Your task to perform on an android device: turn off notifications in google photos Image 0: 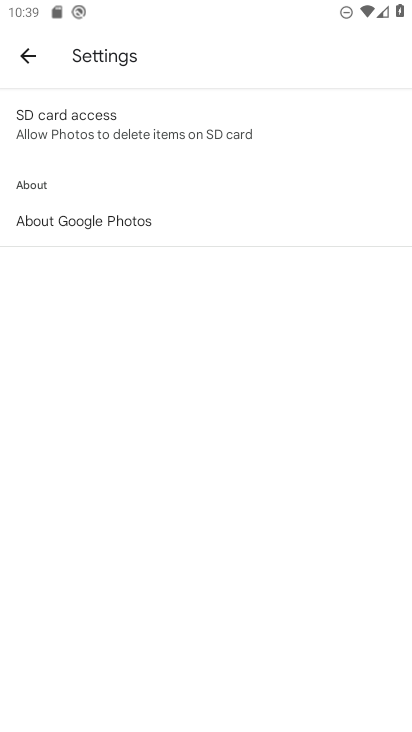
Step 0: press home button
Your task to perform on an android device: turn off notifications in google photos Image 1: 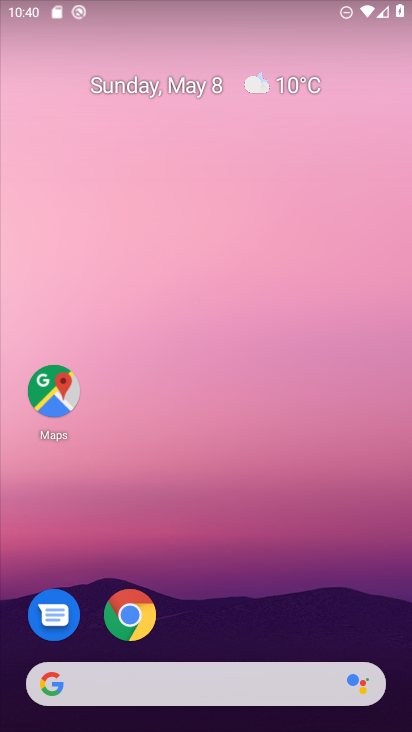
Step 1: drag from (283, 580) to (246, 81)
Your task to perform on an android device: turn off notifications in google photos Image 2: 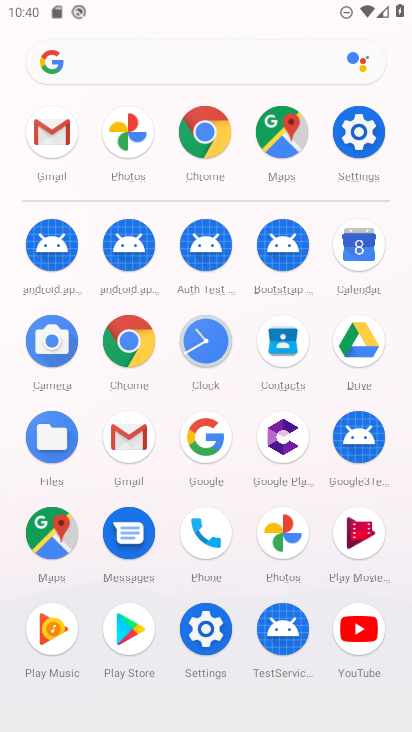
Step 2: click (279, 532)
Your task to perform on an android device: turn off notifications in google photos Image 3: 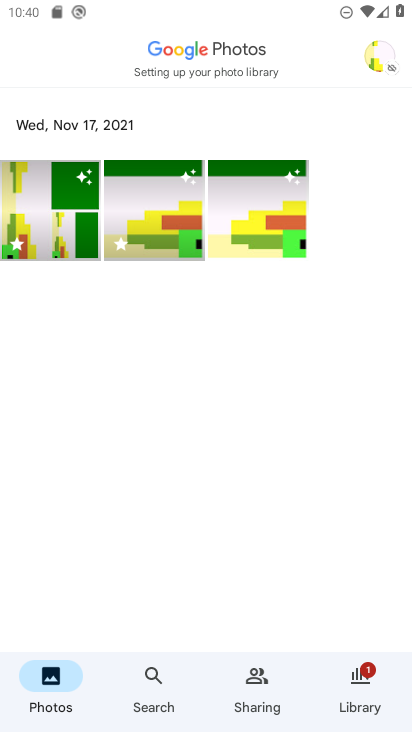
Step 3: click (382, 48)
Your task to perform on an android device: turn off notifications in google photos Image 4: 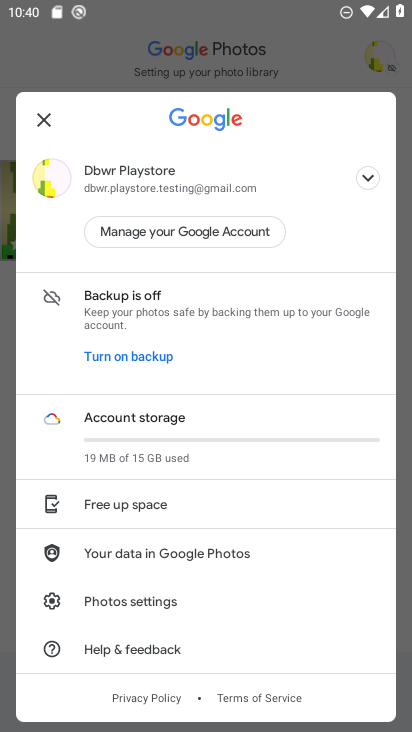
Step 4: drag from (221, 641) to (307, 196)
Your task to perform on an android device: turn off notifications in google photos Image 5: 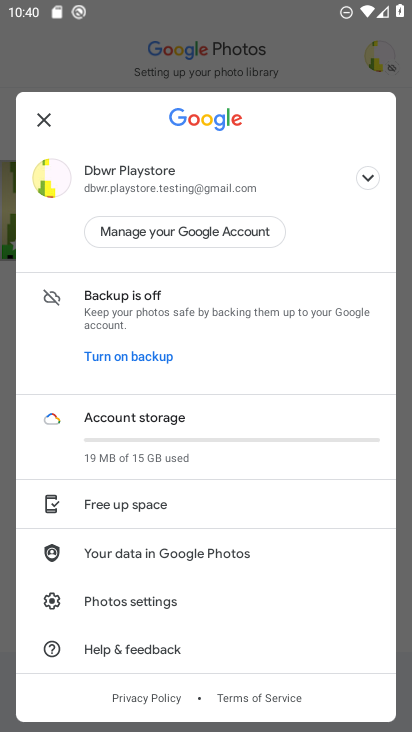
Step 5: click (129, 590)
Your task to perform on an android device: turn off notifications in google photos Image 6: 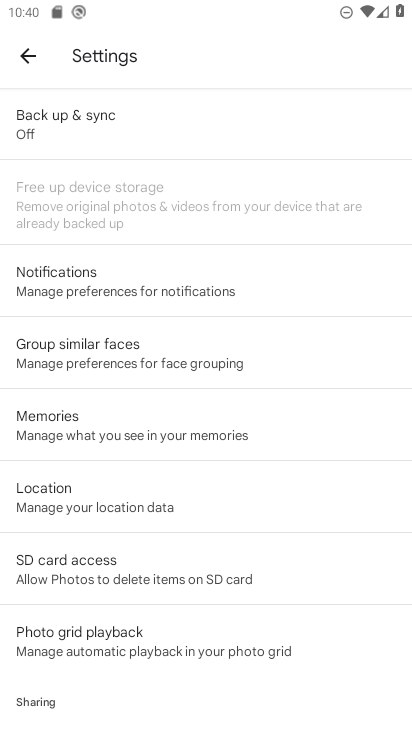
Step 6: click (136, 287)
Your task to perform on an android device: turn off notifications in google photos Image 7: 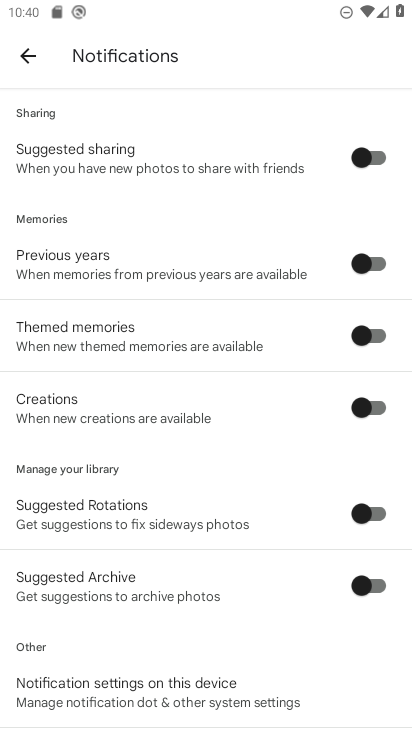
Step 7: drag from (183, 664) to (190, 159)
Your task to perform on an android device: turn off notifications in google photos Image 8: 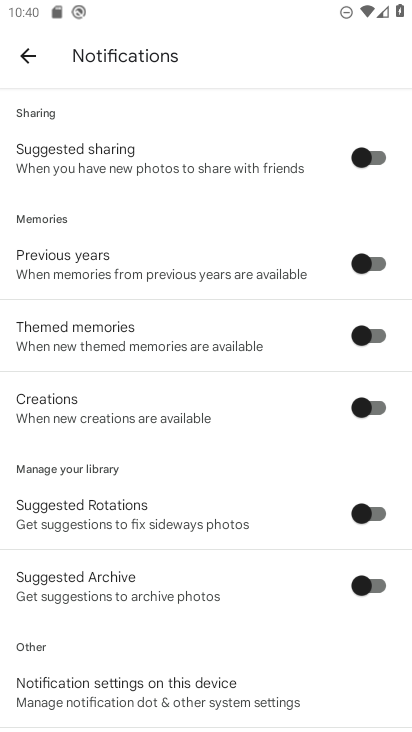
Step 8: click (238, 701)
Your task to perform on an android device: turn off notifications in google photos Image 9: 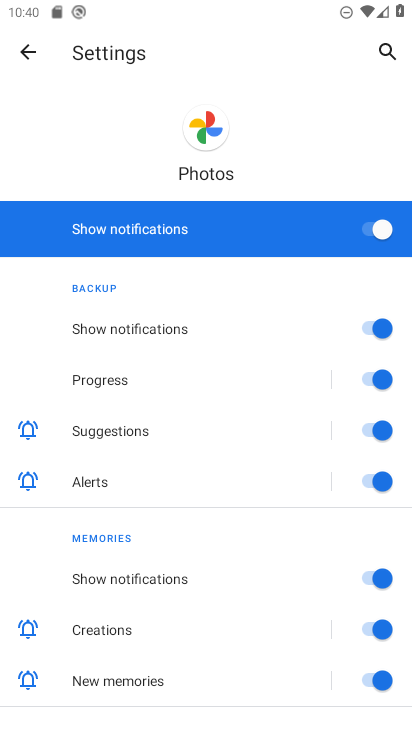
Step 9: click (372, 221)
Your task to perform on an android device: turn off notifications in google photos Image 10: 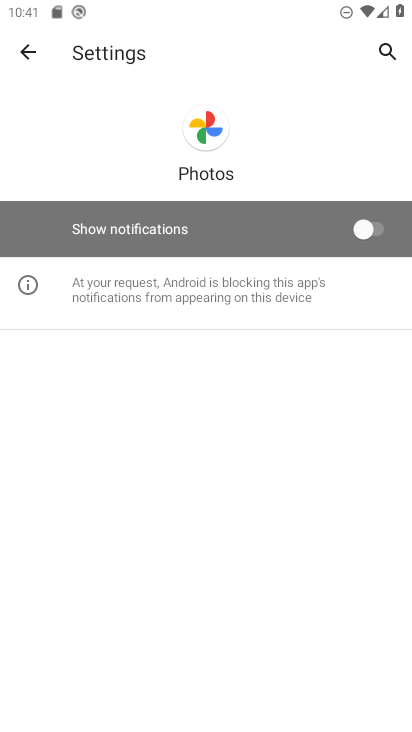
Step 10: task complete